Your task to perform on an android device: Open Google Maps Image 0: 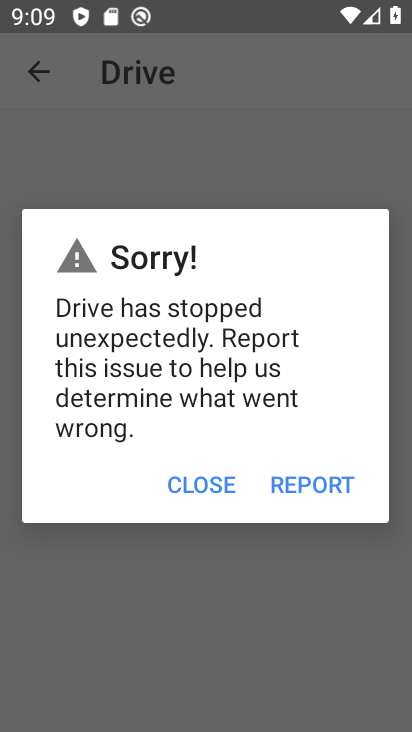
Step 0: click (202, 476)
Your task to perform on an android device: Open Google Maps Image 1: 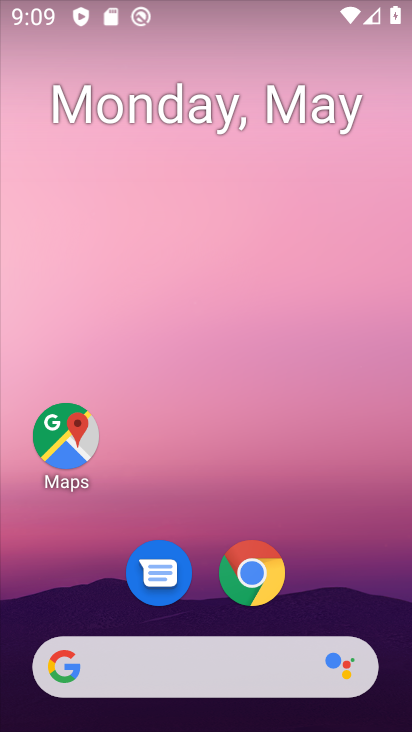
Step 1: drag from (389, 638) to (258, 203)
Your task to perform on an android device: Open Google Maps Image 2: 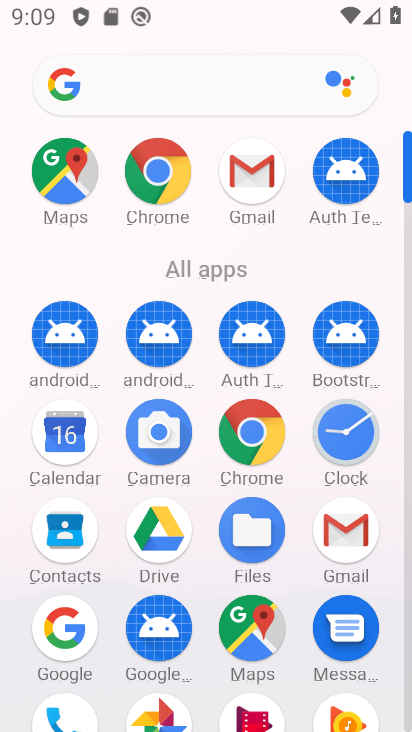
Step 2: click (59, 174)
Your task to perform on an android device: Open Google Maps Image 3: 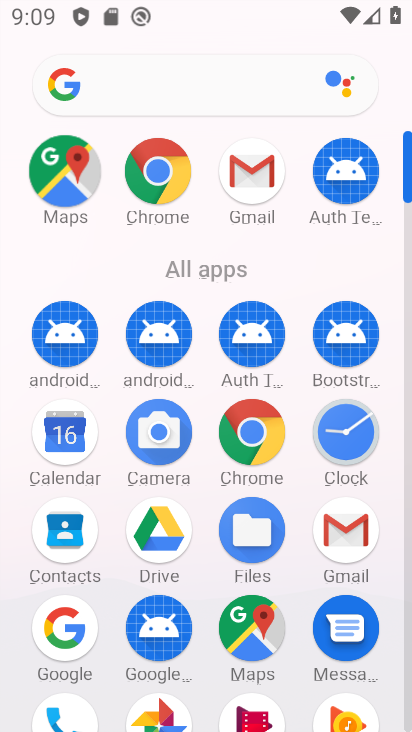
Step 3: click (63, 176)
Your task to perform on an android device: Open Google Maps Image 4: 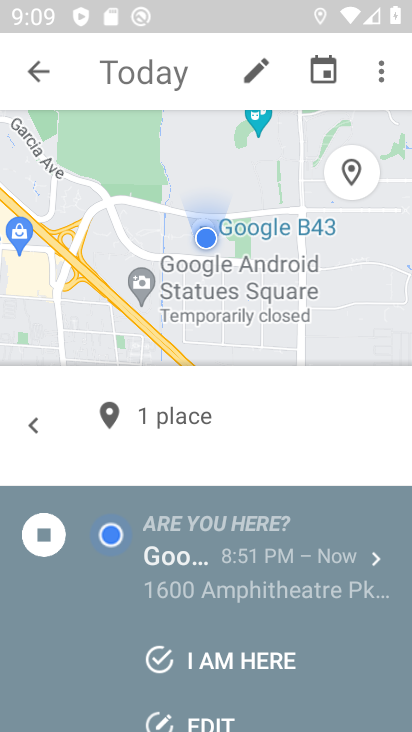
Step 4: task complete